Your task to perform on an android device: Go to Amazon Image 0: 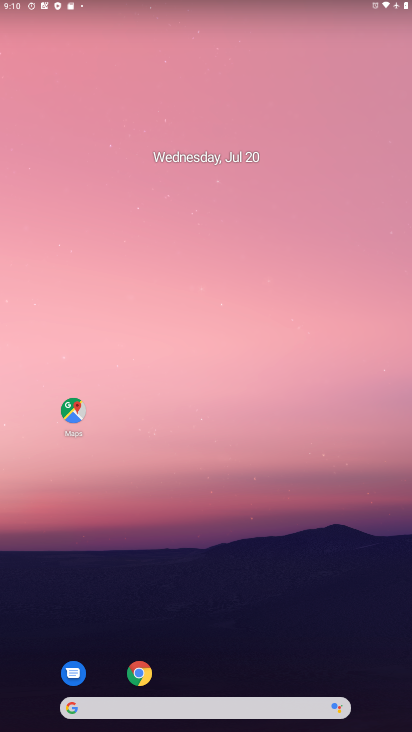
Step 0: click (141, 671)
Your task to perform on an android device: Go to Amazon Image 1: 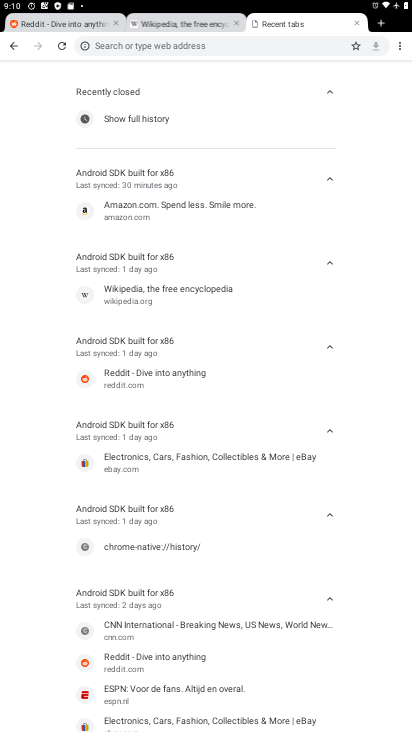
Step 1: click (380, 24)
Your task to perform on an android device: Go to Amazon Image 2: 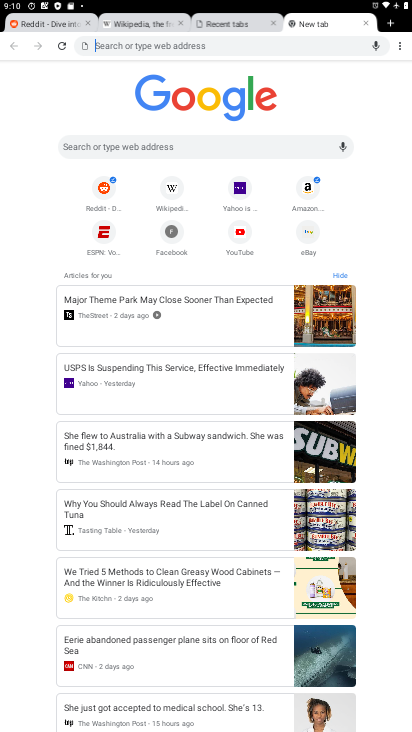
Step 2: click (307, 187)
Your task to perform on an android device: Go to Amazon Image 3: 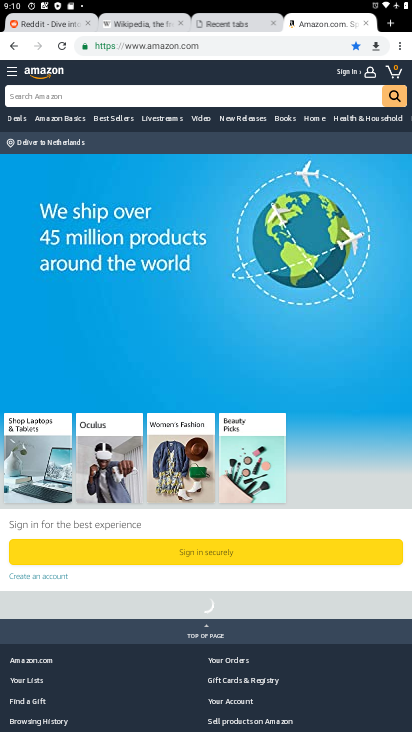
Step 3: task complete